Your task to perform on an android device: change your default location settings in chrome Image 0: 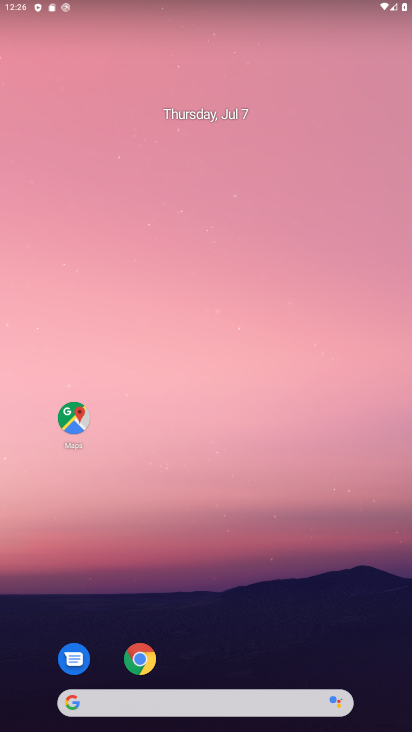
Step 0: click (137, 654)
Your task to perform on an android device: change your default location settings in chrome Image 1: 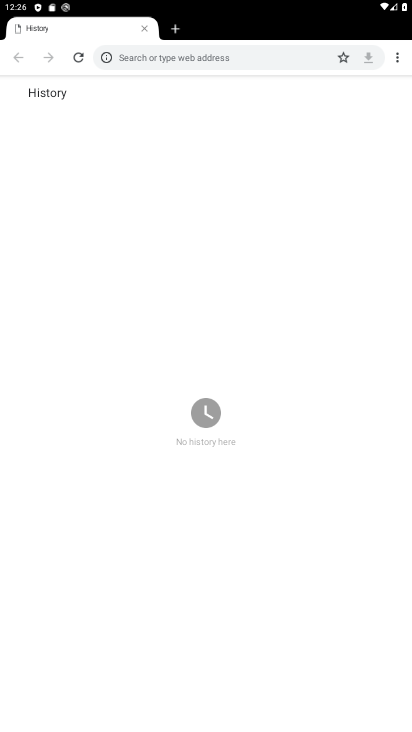
Step 1: click (393, 59)
Your task to perform on an android device: change your default location settings in chrome Image 2: 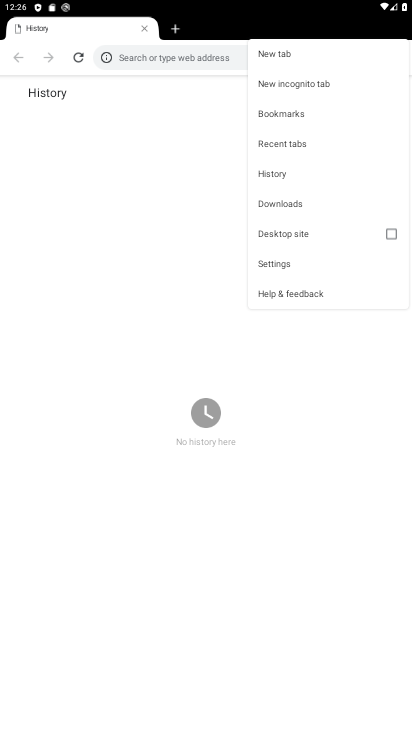
Step 2: click (278, 262)
Your task to perform on an android device: change your default location settings in chrome Image 3: 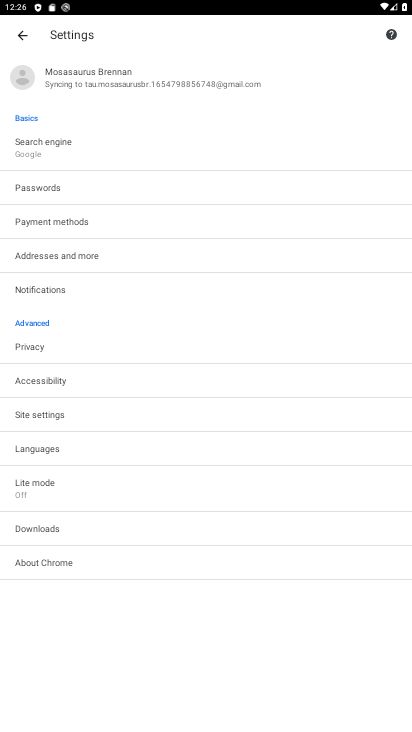
Step 3: click (43, 412)
Your task to perform on an android device: change your default location settings in chrome Image 4: 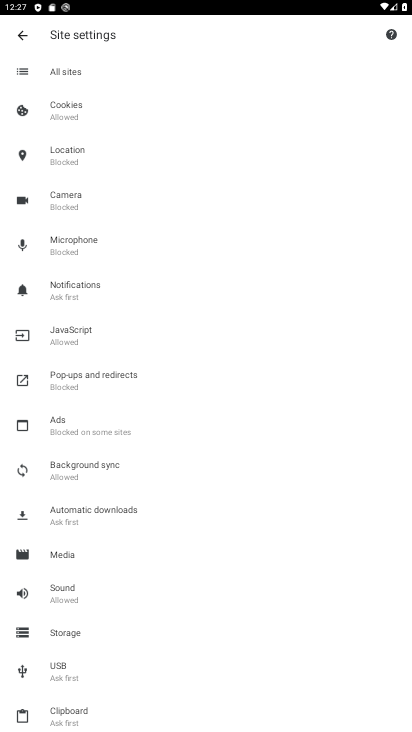
Step 4: click (83, 150)
Your task to perform on an android device: change your default location settings in chrome Image 5: 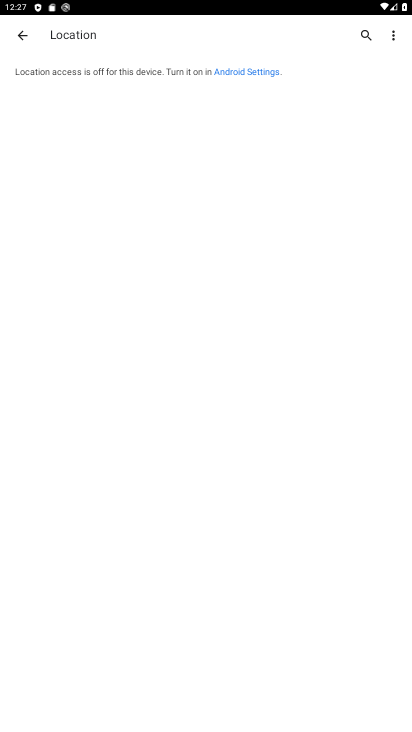
Step 5: click (233, 70)
Your task to perform on an android device: change your default location settings in chrome Image 6: 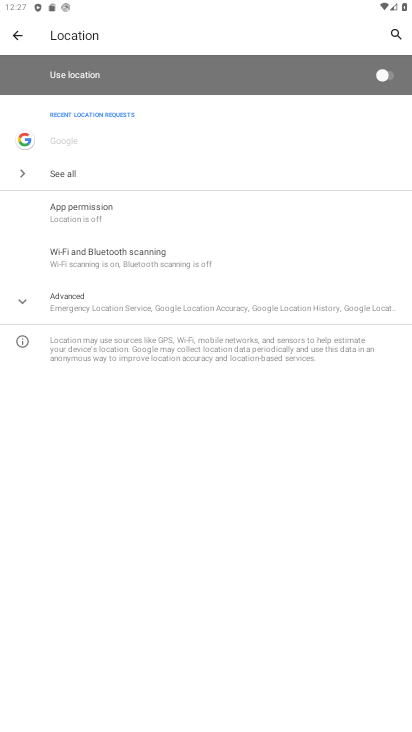
Step 6: click (381, 78)
Your task to perform on an android device: change your default location settings in chrome Image 7: 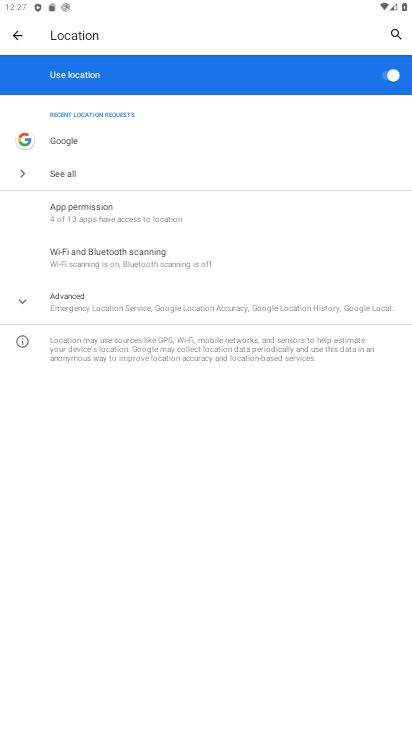
Step 7: task complete